Your task to perform on an android device: Open the phone app and click the voicemail tab. Image 0: 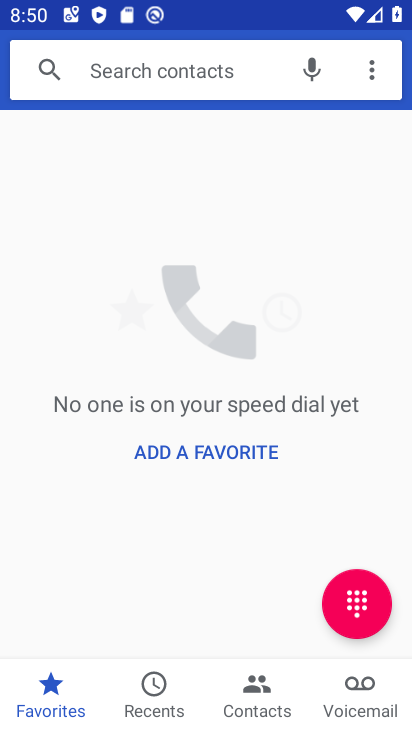
Step 0: click (350, 681)
Your task to perform on an android device: Open the phone app and click the voicemail tab. Image 1: 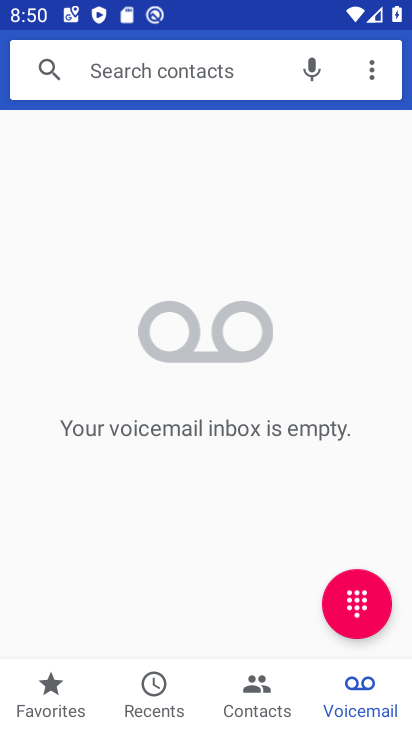
Step 1: task complete